Your task to perform on an android device: toggle notification dots Image 0: 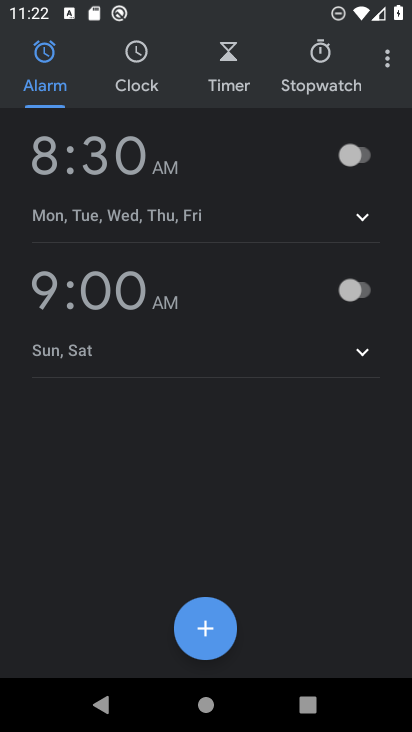
Step 0: press home button
Your task to perform on an android device: toggle notification dots Image 1: 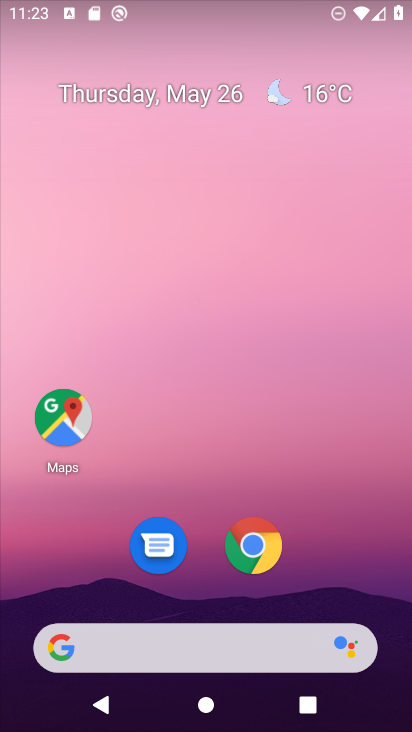
Step 1: drag from (312, 614) to (313, 228)
Your task to perform on an android device: toggle notification dots Image 2: 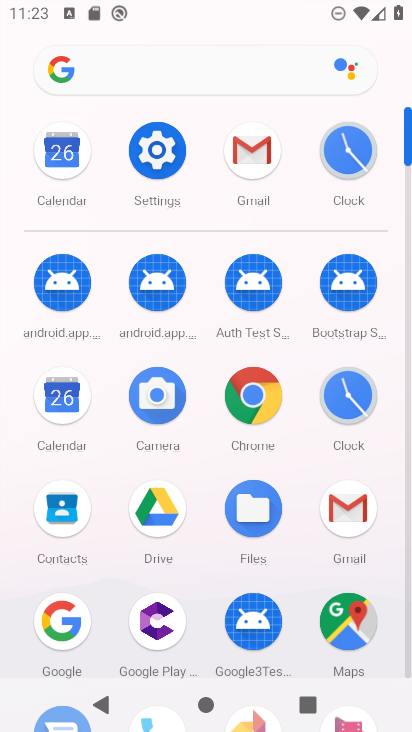
Step 2: click (157, 151)
Your task to perform on an android device: toggle notification dots Image 3: 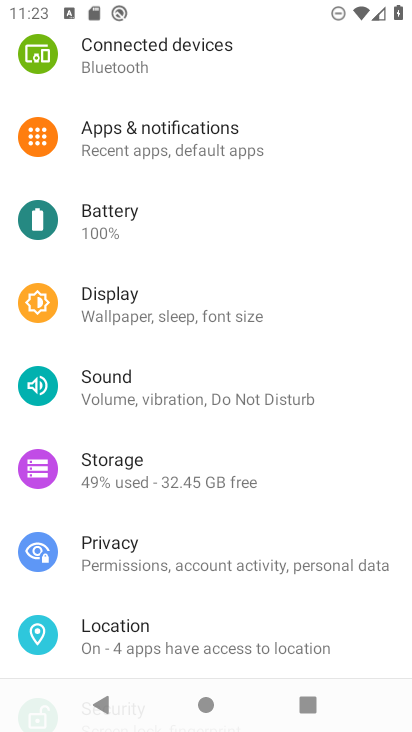
Step 3: click (155, 140)
Your task to perform on an android device: toggle notification dots Image 4: 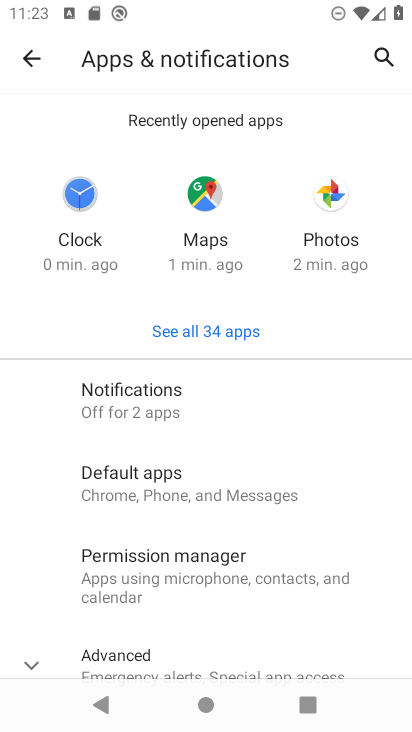
Step 4: click (124, 395)
Your task to perform on an android device: toggle notification dots Image 5: 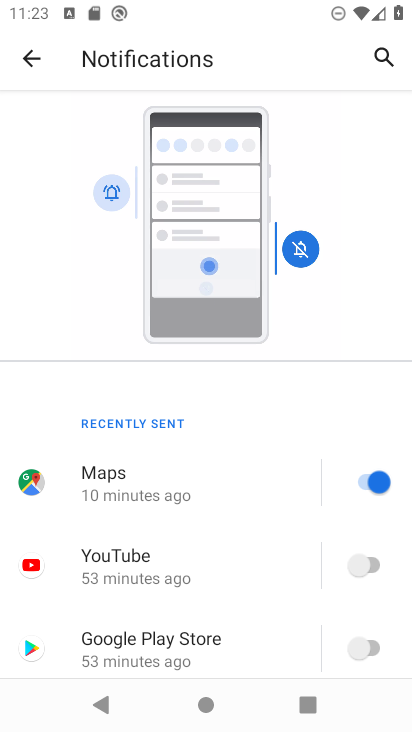
Step 5: drag from (357, 448) to (406, 16)
Your task to perform on an android device: toggle notification dots Image 6: 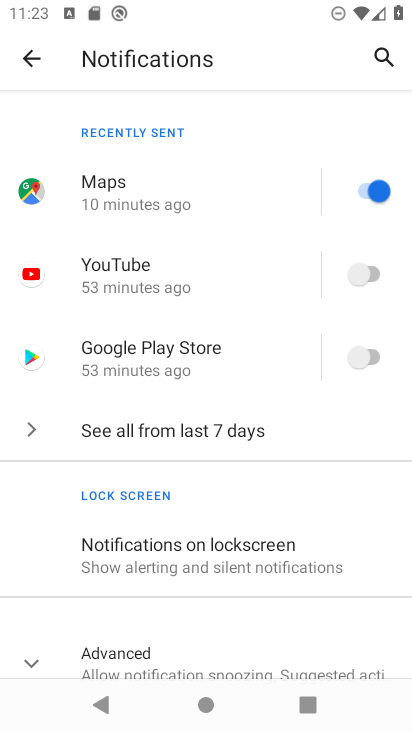
Step 6: drag from (371, 617) to (349, 176)
Your task to perform on an android device: toggle notification dots Image 7: 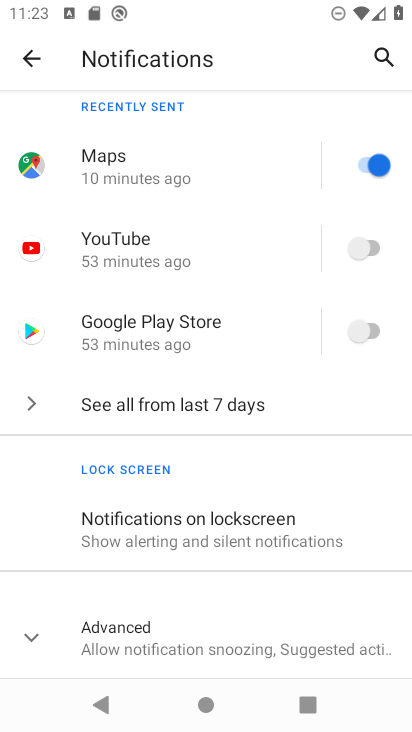
Step 7: click (103, 646)
Your task to perform on an android device: toggle notification dots Image 8: 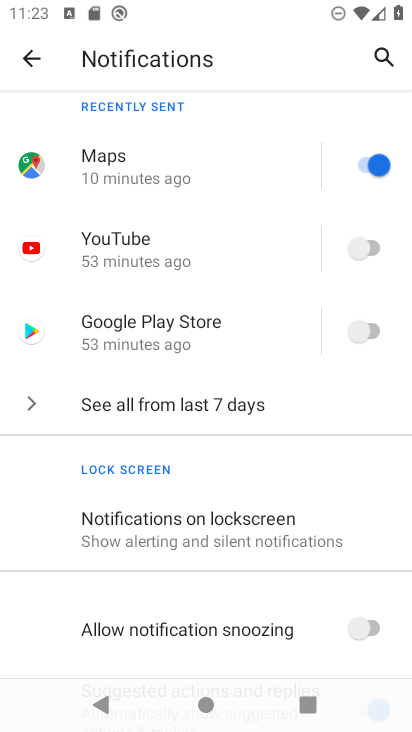
Step 8: drag from (199, 592) to (180, 147)
Your task to perform on an android device: toggle notification dots Image 9: 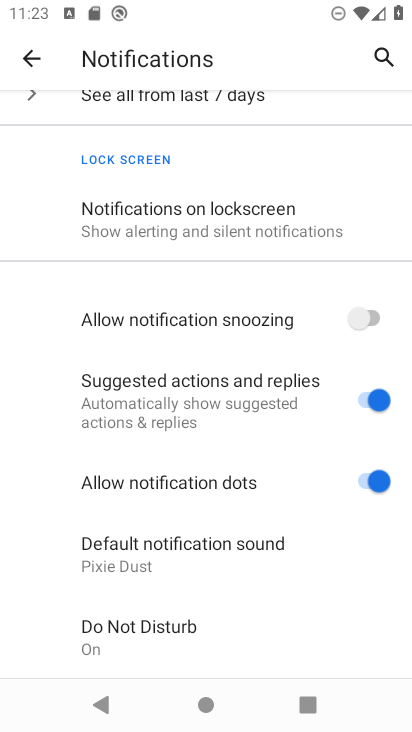
Step 9: click (381, 478)
Your task to perform on an android device: toggle notification dots Image 10: 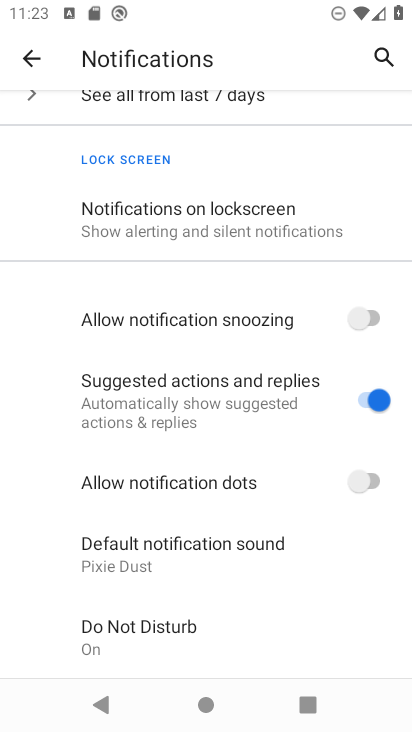
Step 10: task complete